Your task to perform on an android device: Open the web browser Image 0: 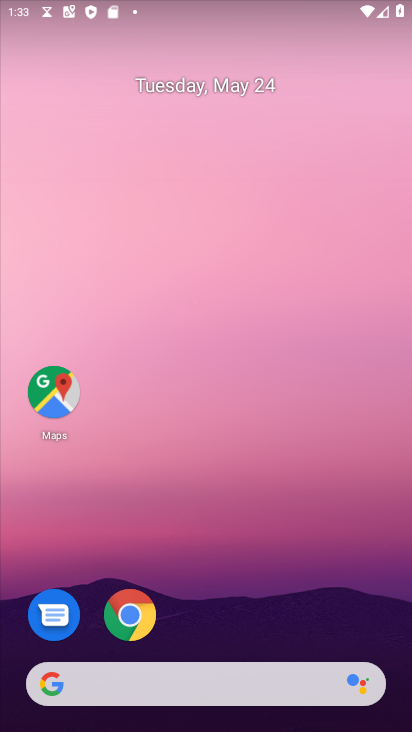
Step 0: drag from (218, 632) to (215, 26)
Your task to perform on an android device: Open the web browser Image 1: 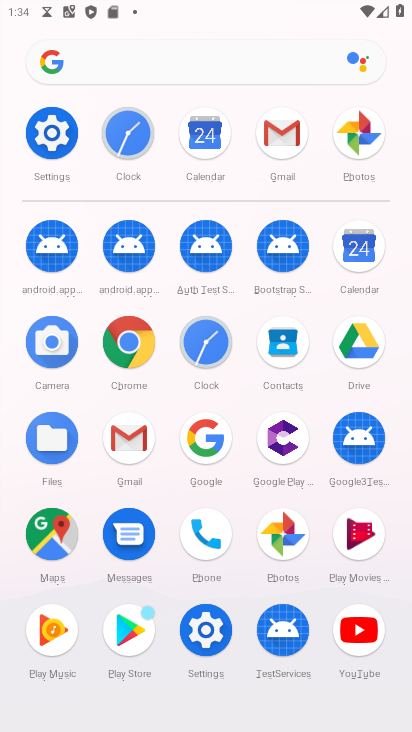
Step 1: click (127, 336)
Your task to perform on an android device: Open the web browser Image 2: 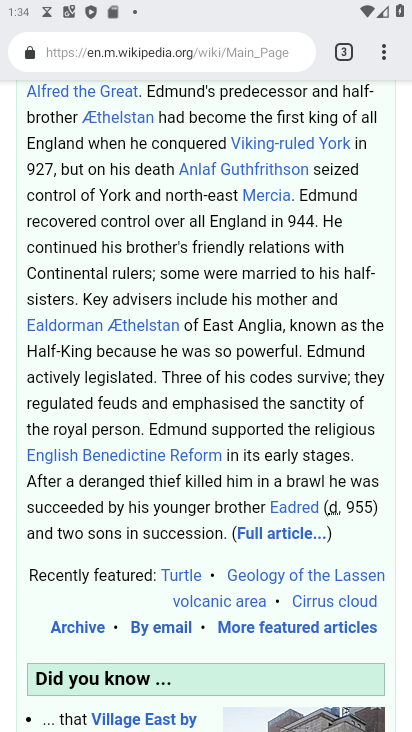
Step 2: click (346, 46)
Your task to perform on an android device: Open the web browser Image 3: 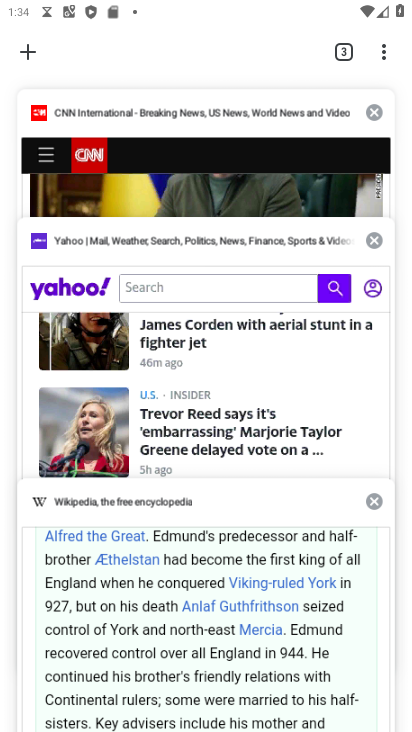
Step 3: click (373, 111)
Your task to perform on an android device: Open the web browser Image 4: 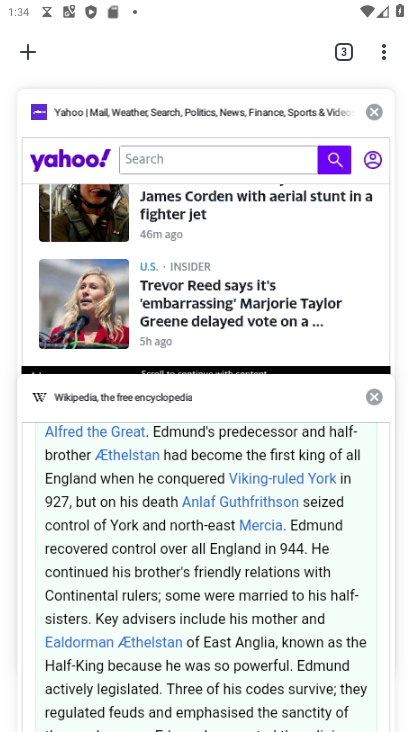
Step 4: click (373, 111)
Your task to perform on an android device: Open the web browser Image 5: 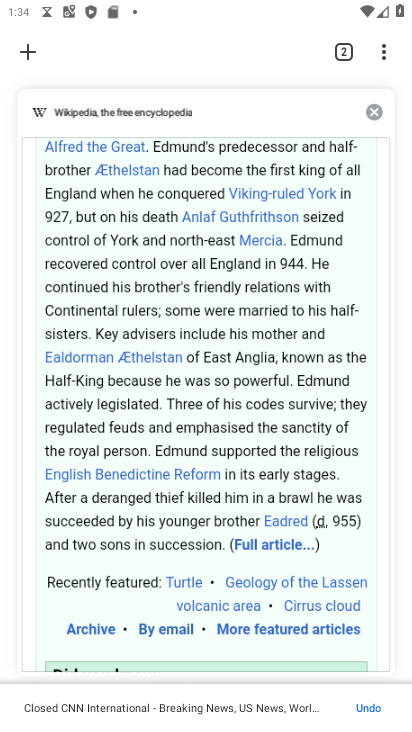
Step 5: click (373, 111)
Your task to perform on an android device: Open the web browser Image 6: 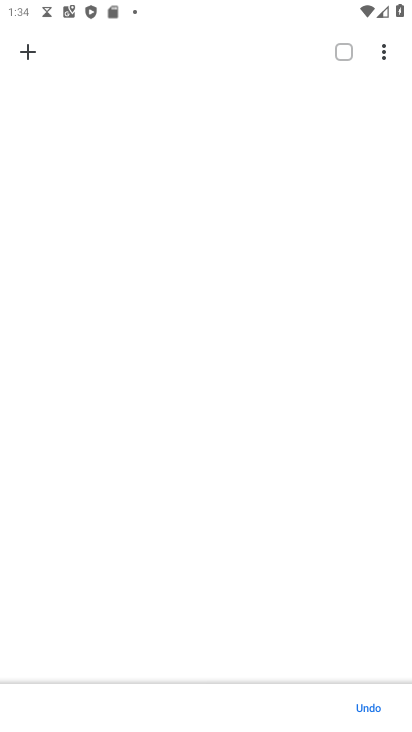
Step 6: click (373, 111)
Your task to perform on an android device: Open the web browser Image 7: 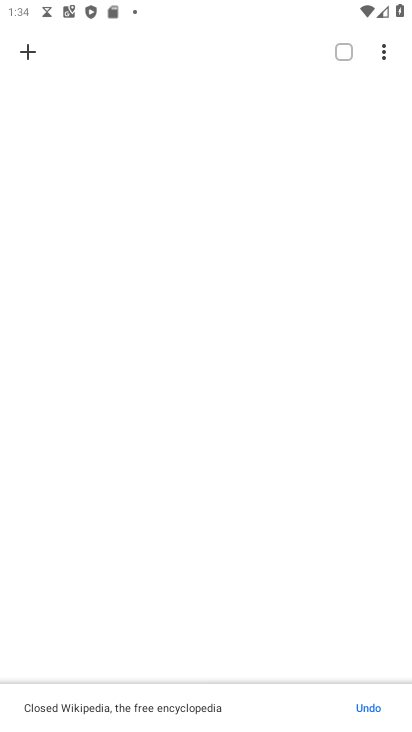
Step 7: click (36, 55)
Your task to perform on an android device: Open the web browser Image 8: 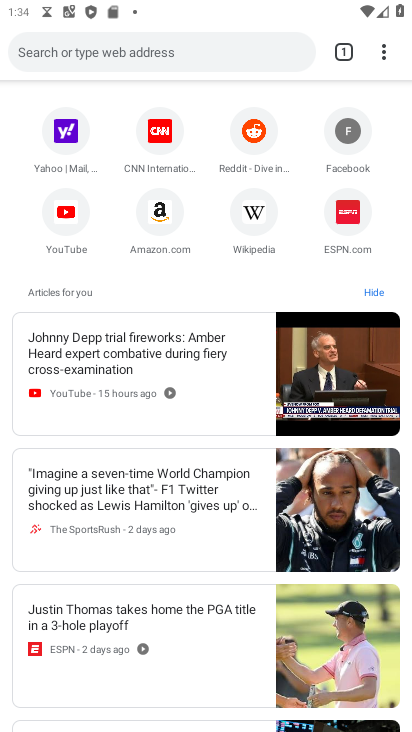
Step 8: task complete